Your task to perform on an android device: toggle location history Image 0: 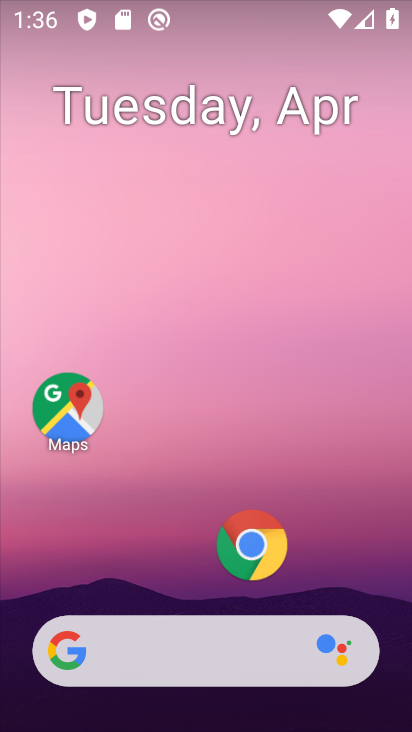
Step 0: drag from (151, 574) to (238, 139)
Your task to perform on an android device: toggle location history Image 1: 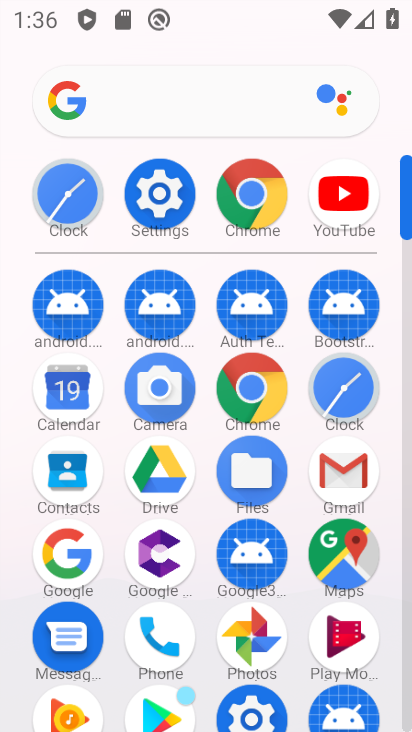
Step 1: click (156, 198)
Your task to perform on an android device: toggle location history Image 2: 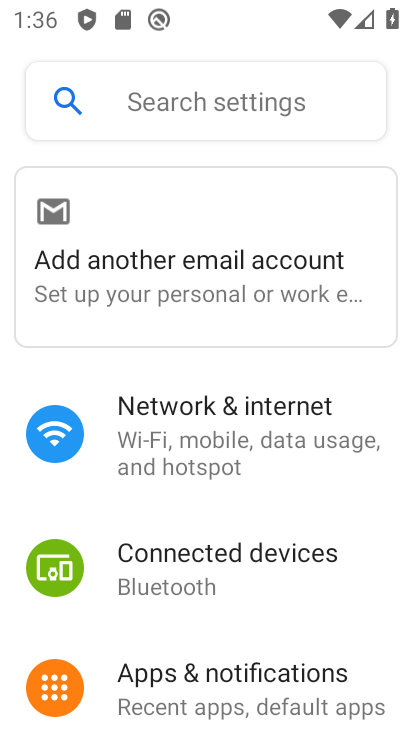
Step 2: drag from (228, 635) to (341, 126)
Your task to perform on an android device: toggle location history Image 3: 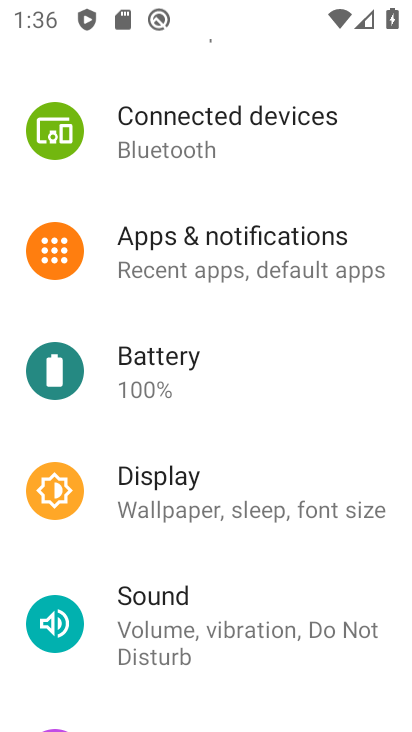
Step 3: drag from (241, 565) to (311, 26)
Your task to perform on an android device: toggle location history Image 4: 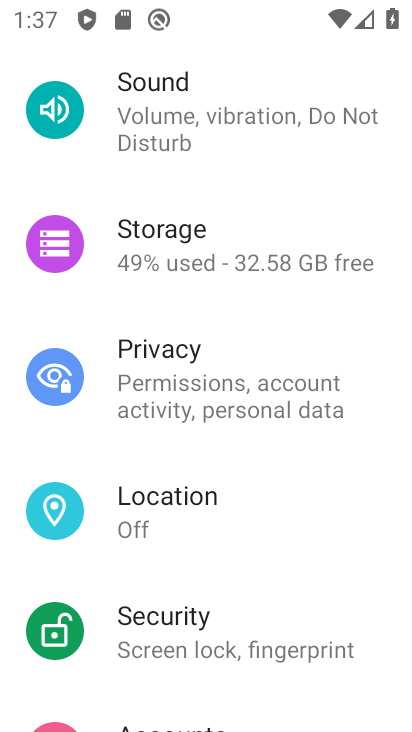
Step 4: click (217, 515)
Your task to perform on an android device: toggle location history Image 5: 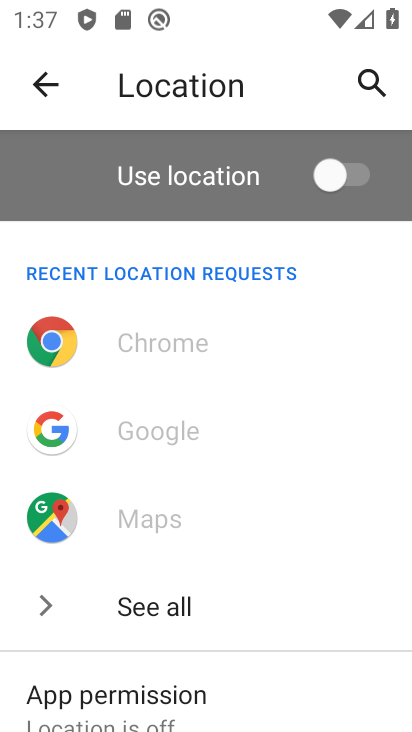
Step 5: click (330, 174)
Your task to perform on an android device: toggle location history Image 6: 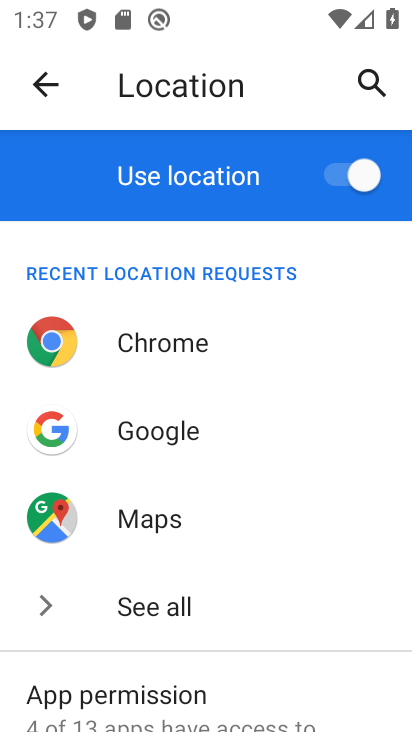
Step 6: task complete